Your task to perform on an android device: star an email in the gmail app Image 0: 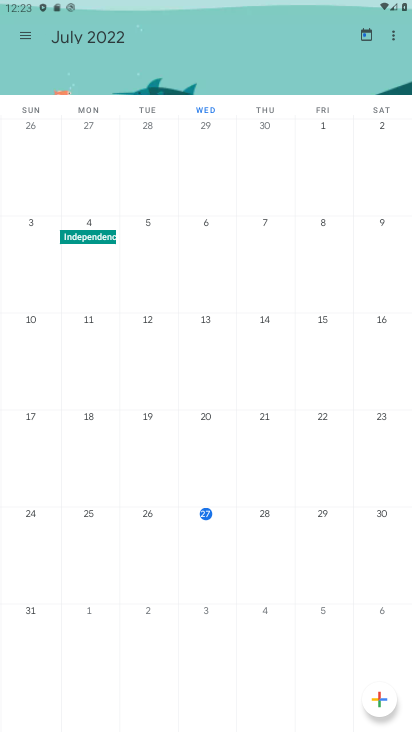
Step 0: press home button
Your task to perform on an android device: star an email in the gmail app Image 1: 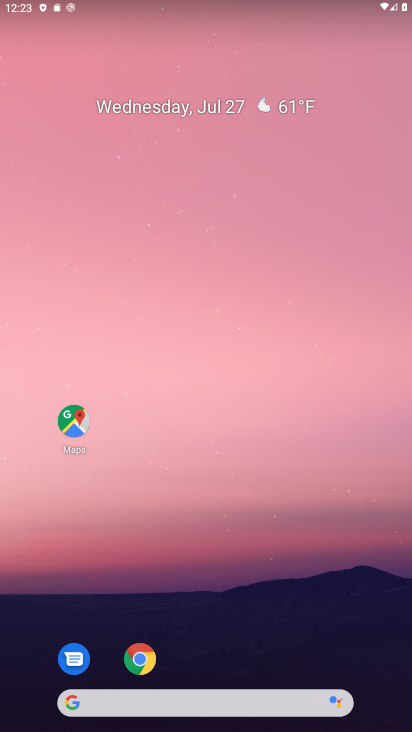
Step 1: drag from (214, 651) to (241, 195)
Your task to perform on an android device: star an email in the gmail app Image 2: 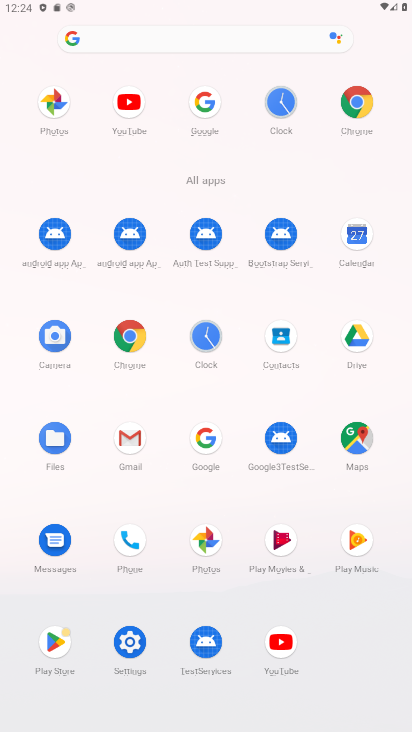
Step 2: click (144, 439)
Your task to perform on an android device: star an email in the gmail app Image 3: 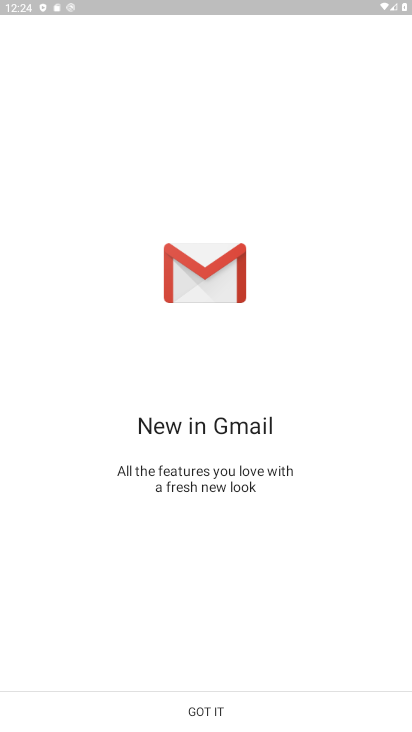
Step 3: click (170, 690)
Your task to perform on an android device: star an email in the gmail app Image 4: 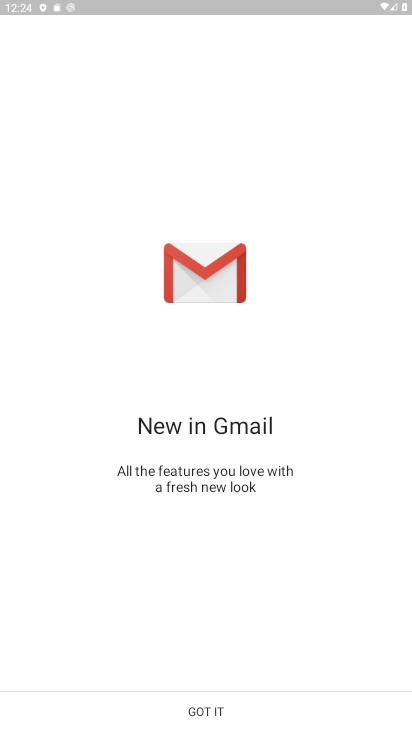
Step 4: click (181, 715)
Your task to perform on an android device: star an email in the gmail app Image 5: 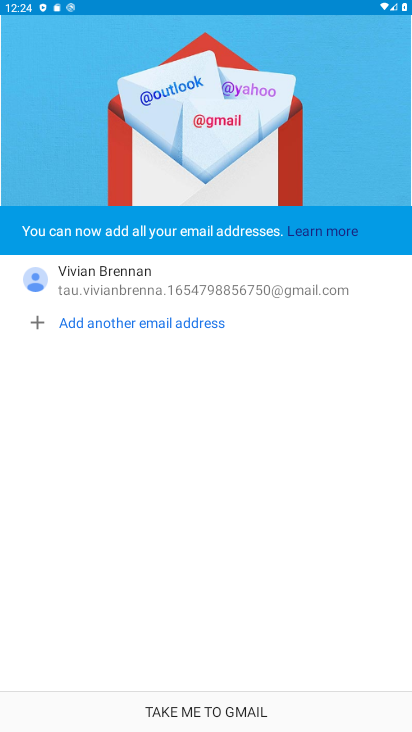
Step 5: click (181, 715)
Your task to perform on an android device: star an email in the gmail app Image 6: 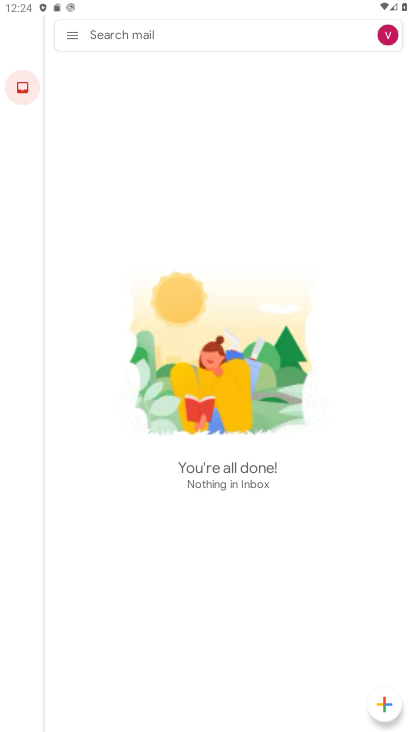
Step 6: click (72, 44)
Your task to perform on an android device: star an email in the gmail app Image 7: 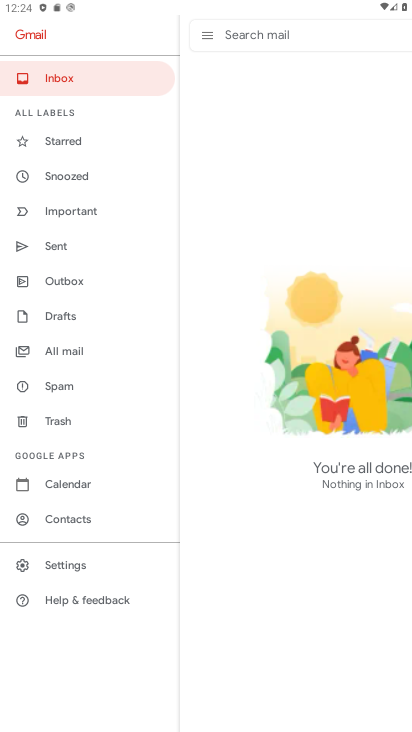
Step 7: click (98, 359)
Your task to perform on an android device: star an email in the gmail app Image 8: 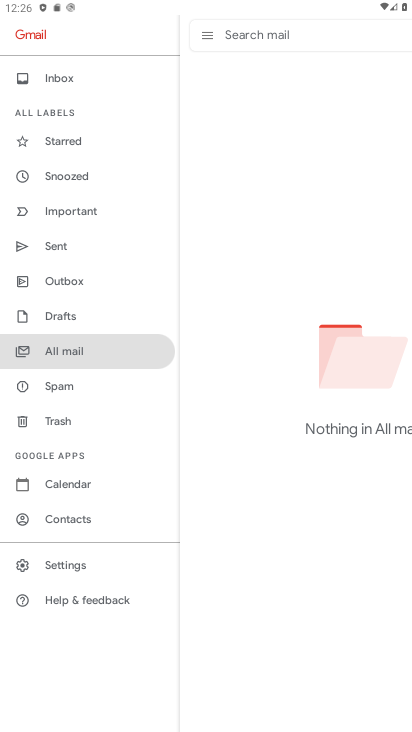
Step 8: click (76, 81)
Your task to perform on an android device: star an email in the gmail app Image 9: 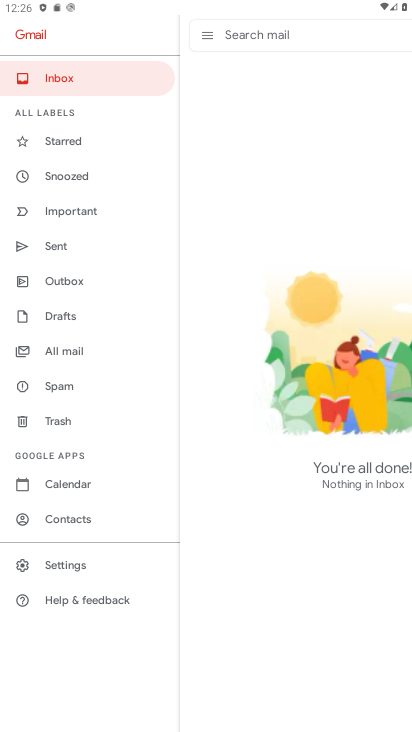
Step 9: click (85, 357)
Your task to perform on an android device: star an email in the gmail app Image 10: 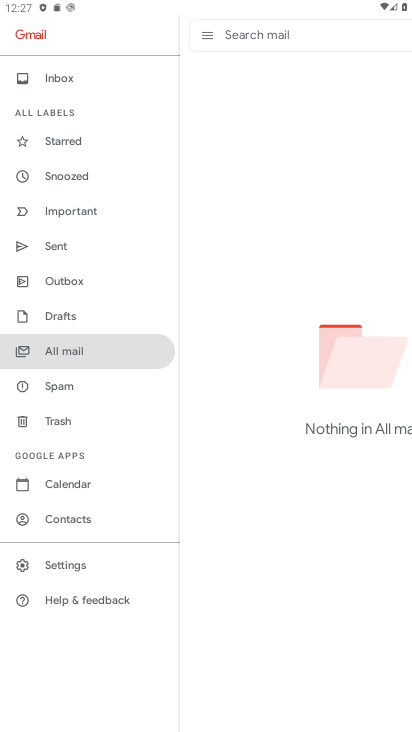
Step 10: click (58, 133)
Your task to perform on an android device: star an email in the gmail app Image 11: 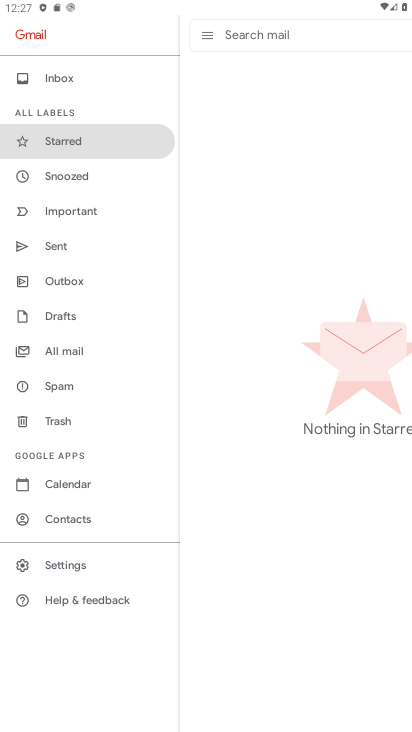
Step 11: click (62, 351)
Your task to perform on an android device: star an email in the gmail app Image 12: 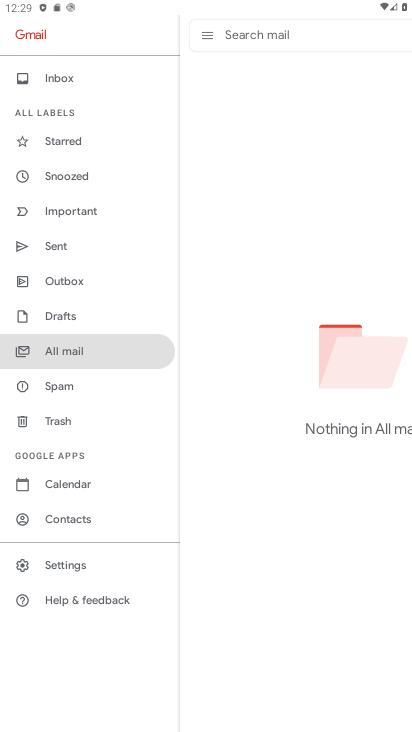
Step 12: task complete